Your task to perform on an android device: Go to accessibility settings Image 0: 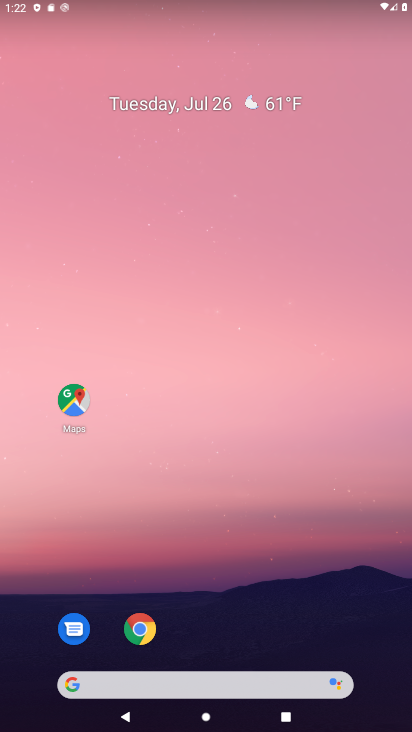
Step 0: drag from (225, 610) to (197, 155)
Your task to perform on an android device: Go to accessibility settings Image 1: 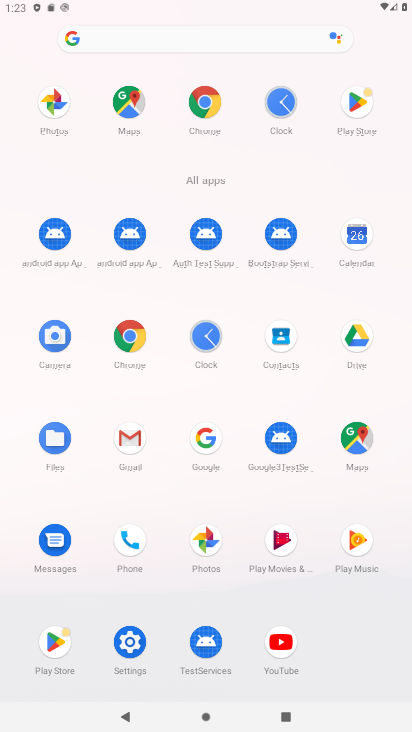
Step 1: click (136, 640)
Your task to perform on an android device: Go to accessibility settings Image 2: 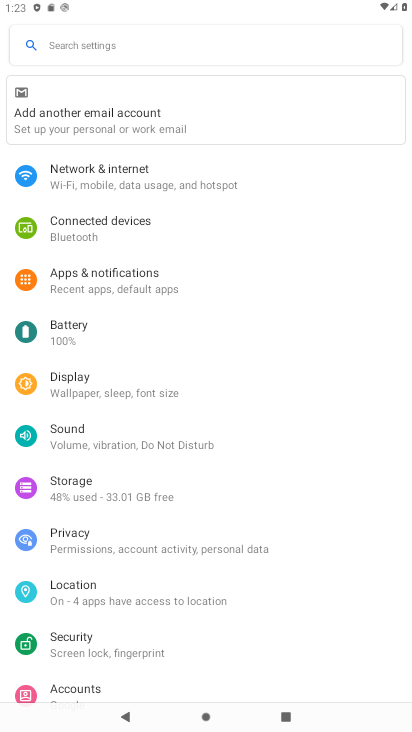
Step 2: drag from (127, 657) to (170, 113)
Your task to perform on an android device: Go to accessibility settings Image 3: 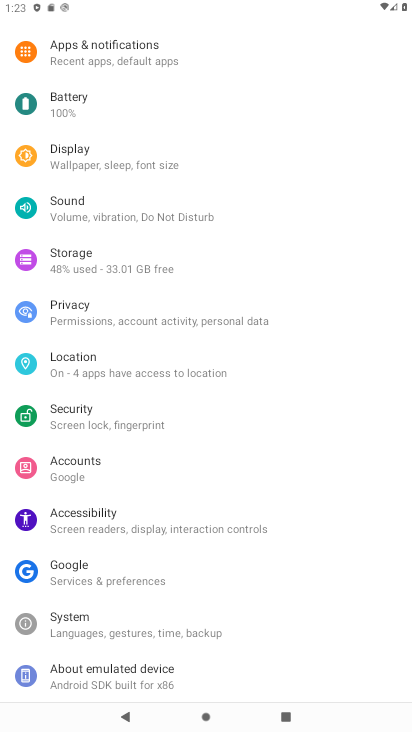
Step 3: click (98, 508)
Your task to perform on an android device: Go to accessibility settings Image 4: 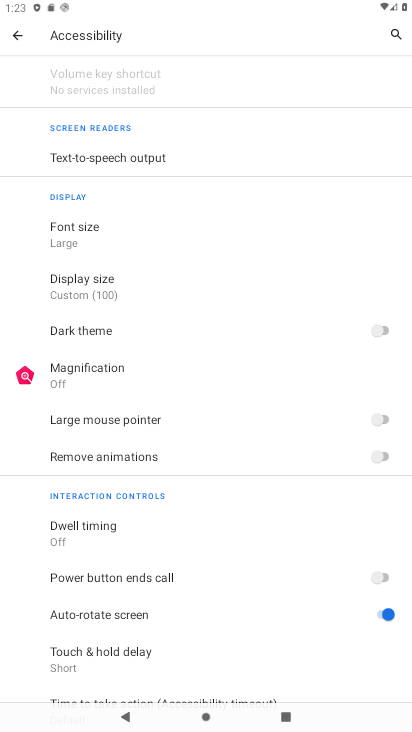
Step 4: task complete